Your task to perform on an android device: Go to eBay Image 0: 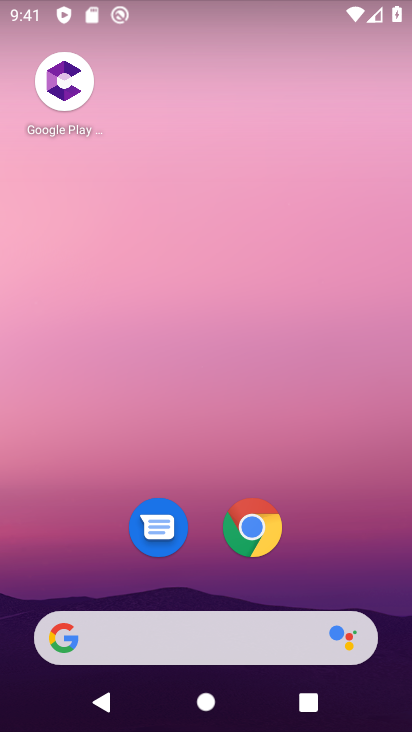
Step 0: click (241, 541)
Your task to perform on an android device: Go to eBay Image 1: 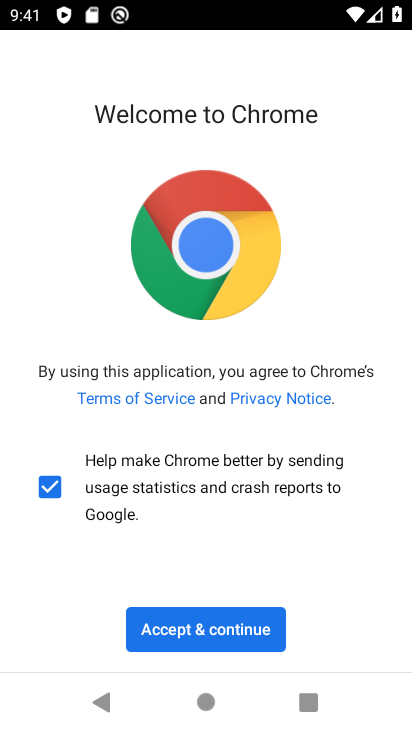
Step 1: click (229, 637)
Your task to perform on an android device: Go to eBay Image 2: 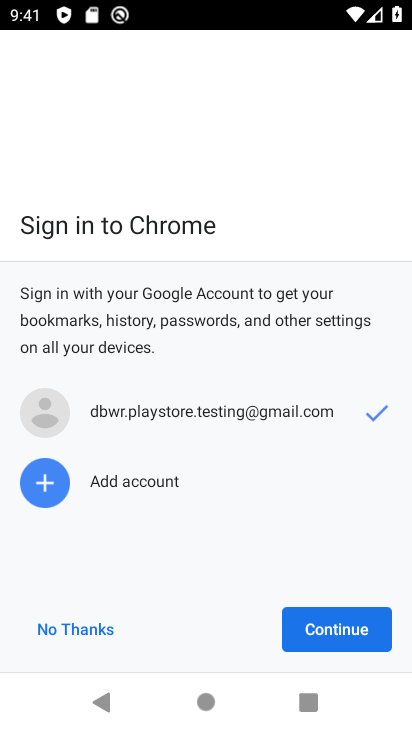
Step 2: click (347, 633)
Your task to perform on an android device: Go to eBay Image 3: 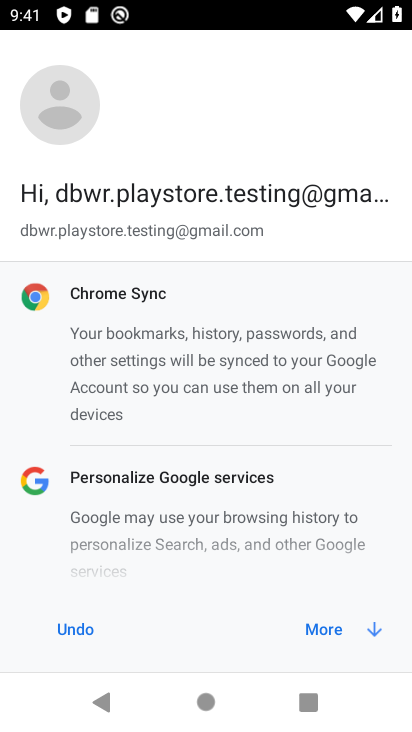
Step 3: click (346, 632)
Your task to perform on an android device: Go to eBay Image 4: 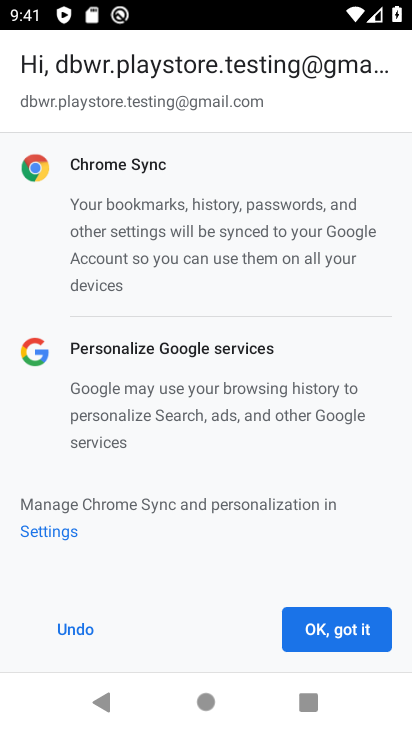
Step 4: click (340, 631)
Your task to perform on an android device: Go to eBay Image 5: 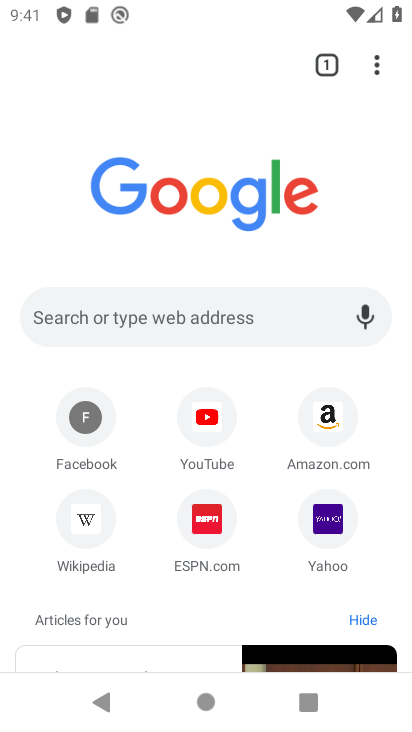
Step 5: click (190, 321)
Your task to perform on an android device: Go to eBay Image 6: 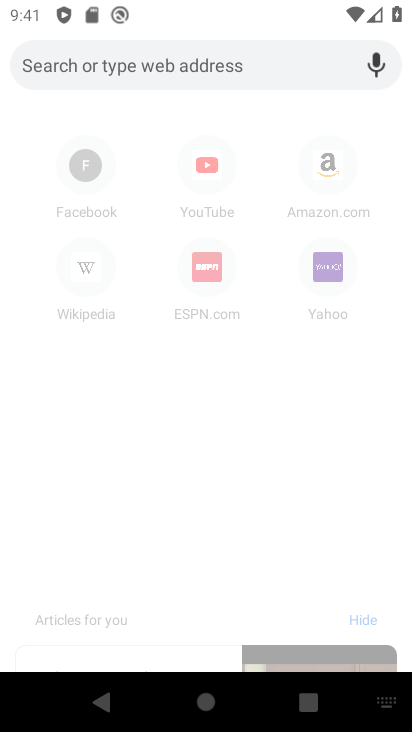
Step 6: type "ebay.com"
Your task to perform on an android device: Go to eBay Image 7: 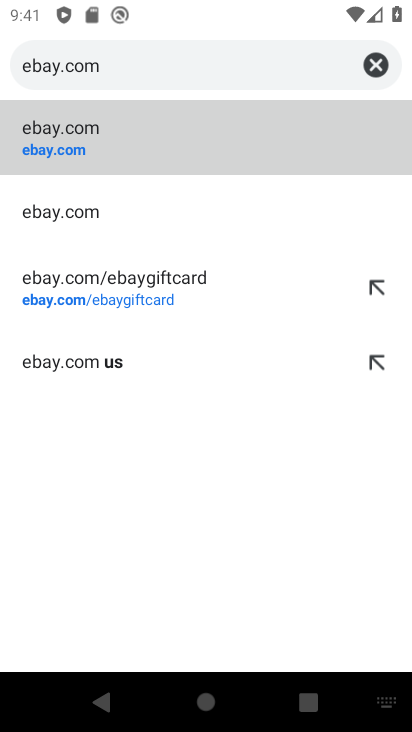
Step 7: click (244, 146)
Your task to perform on an android device: Go to eBay Image 8: 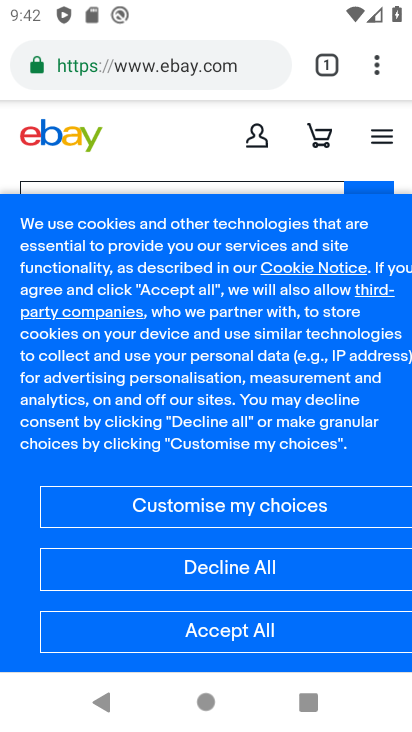
Step 8: task complete